Your task to perform on an android device: turn smart compose on in the gmail app Image 0: 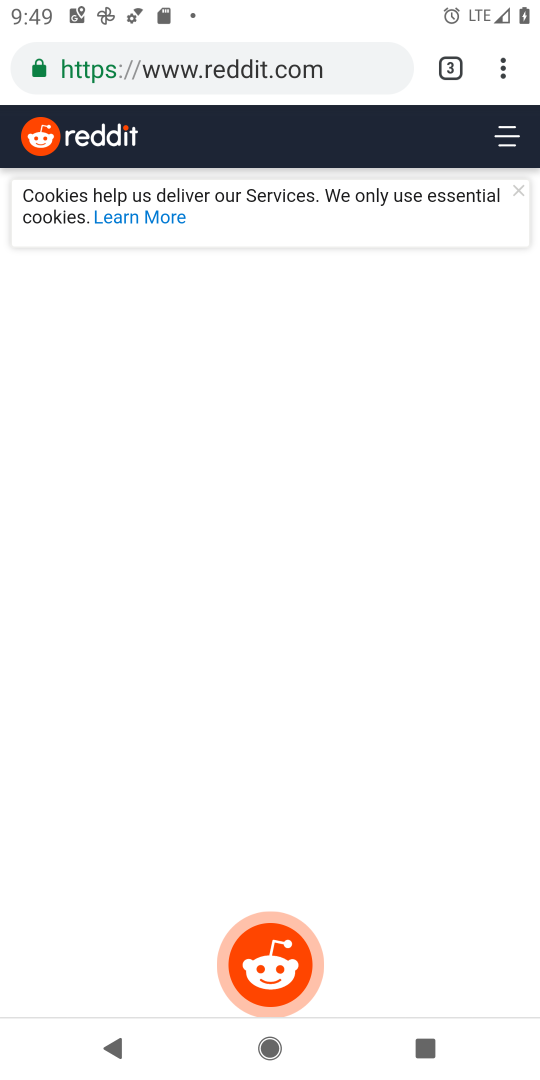
Step 0: press home button
Your task to perform on an android device: turn smart compose on in the gmail app Image 1: 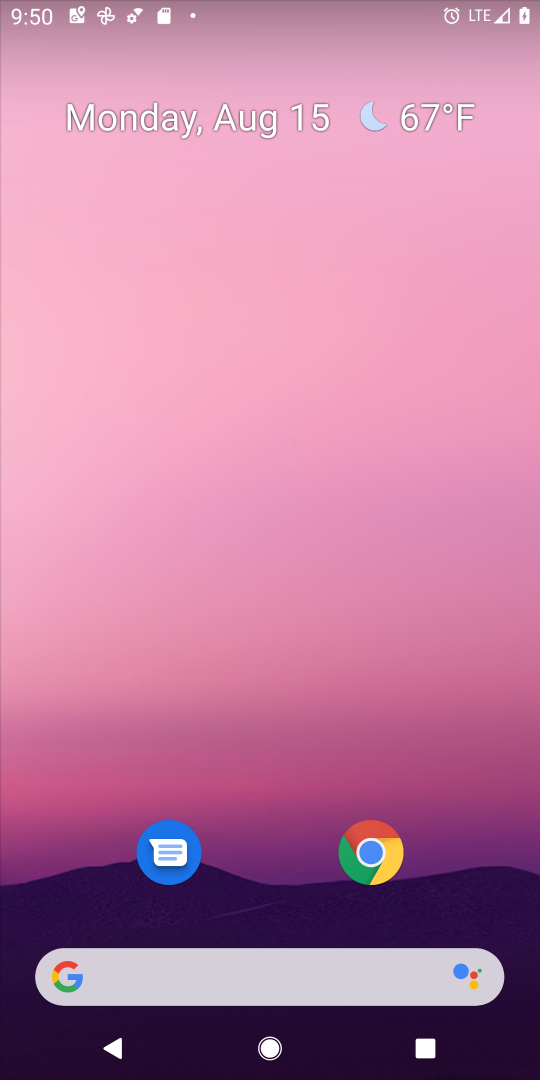
Step 1: drag from (247, 987) to (444, 245)
Your task to perform on an android device: turn smart compose on in the gmail app Image 2: 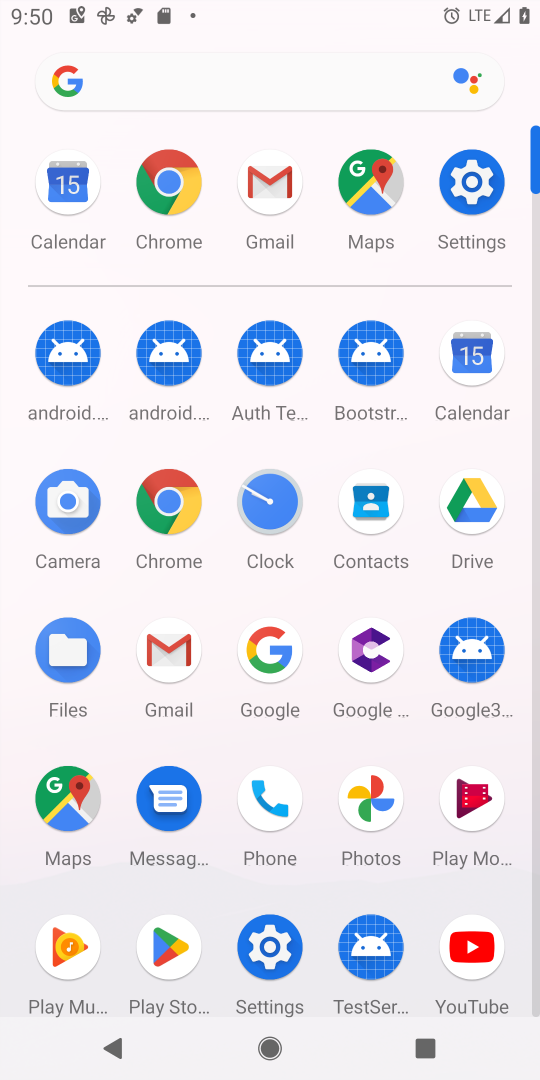
Step 2: click (270, 179)
Your task to perform on an android device: turn smart compose on in the gmail app Image 3: 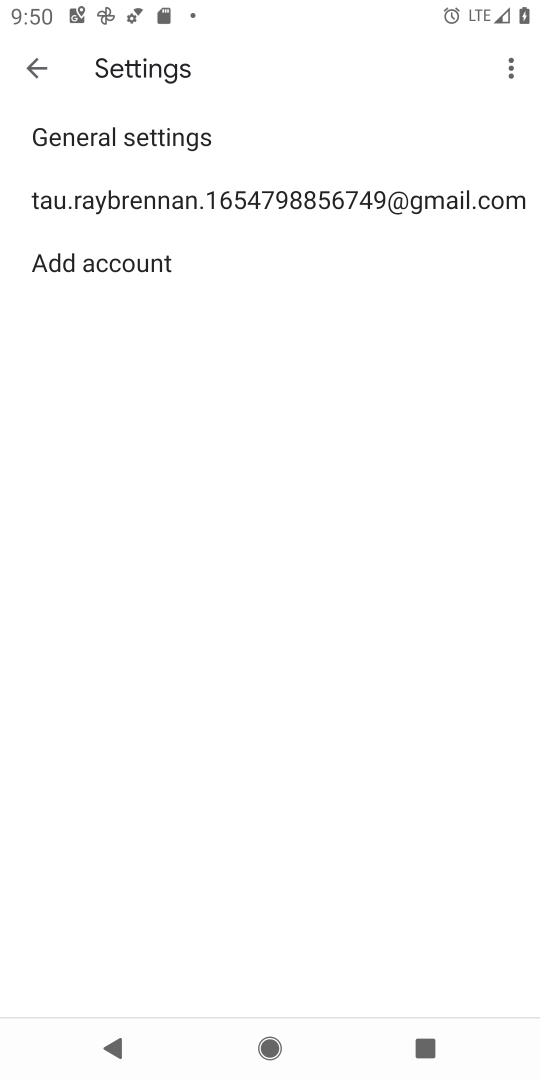
Step 3: click (258, 189)
Your task to perform on an android device: turn smart compose on in the gmail app Image 4: 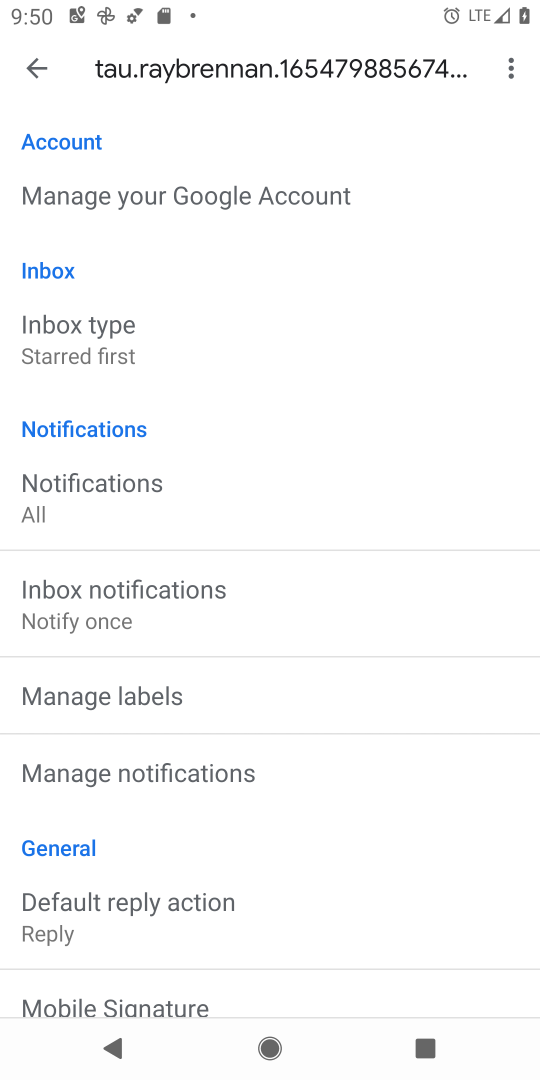
Step 4: task complete